Your task to perform on an android device: empty trash in the gmail app Image 0: 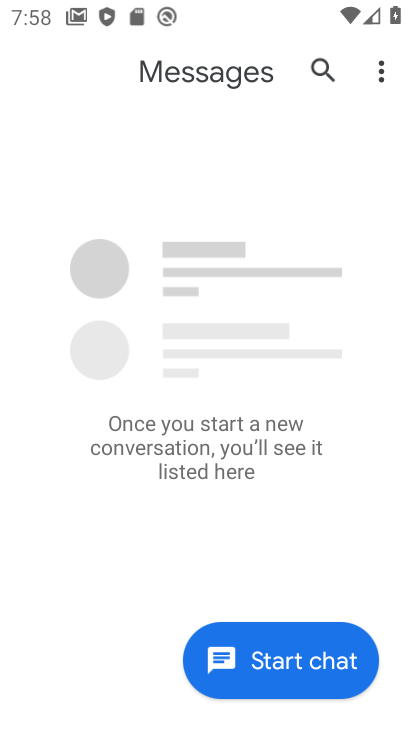
Step 0: press home button
Your task to perform on an android device: empty trash in the gmail app Image 1: 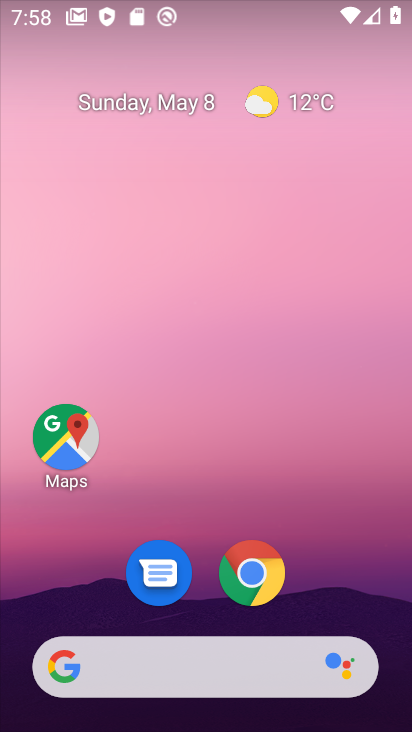
Step 1: drag from (216, 731) to (225, 186)
Your task to perform on an android device: empty trash in the gmail app Image 2: 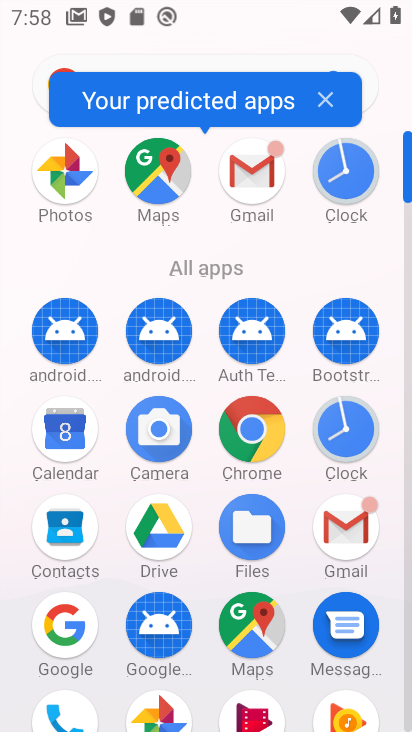
Step 2: click (350, 529)
Your task to perform on an android device: empty trash in the gmail app Image 3: 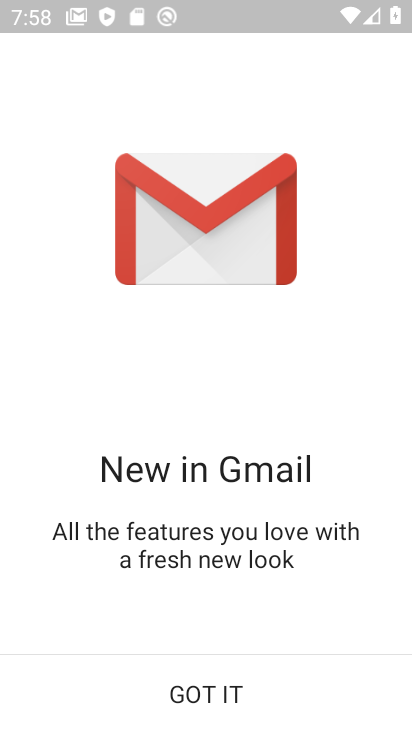
Step 3: click (190, 706)
Your task to perform on an android device: empty trash in the gmail app Image 4: 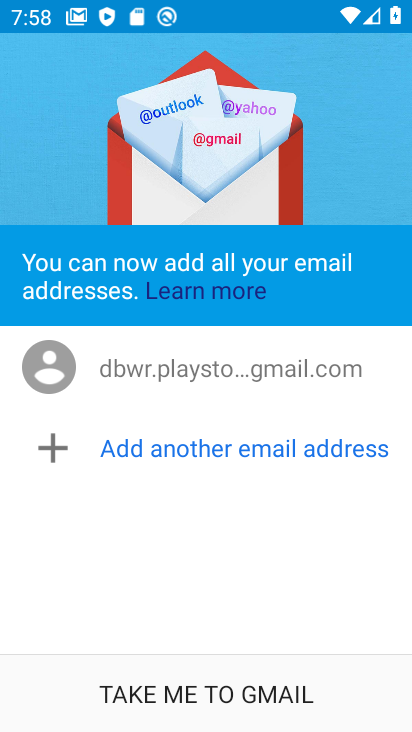
Step 4: click (204, 698)
Your task to perform on an android device: empty trash in the gmail app Image 5: 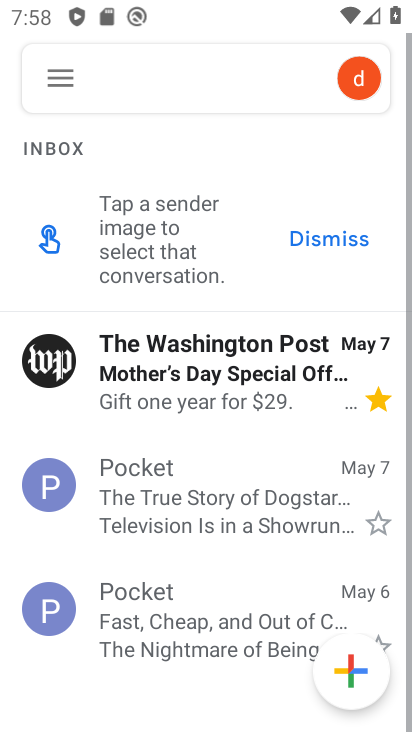
Step 5: click (59, 74)
Your task to perform on an android device: empty trash in the gmail app Image 6: 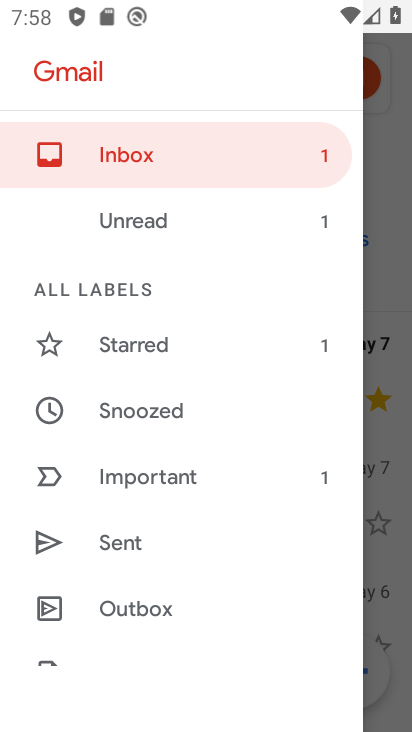
Step 6: drag from (155, 651) to (173, 260)
Your task to perform on an android device: empty trash in the gmail app Image 7: 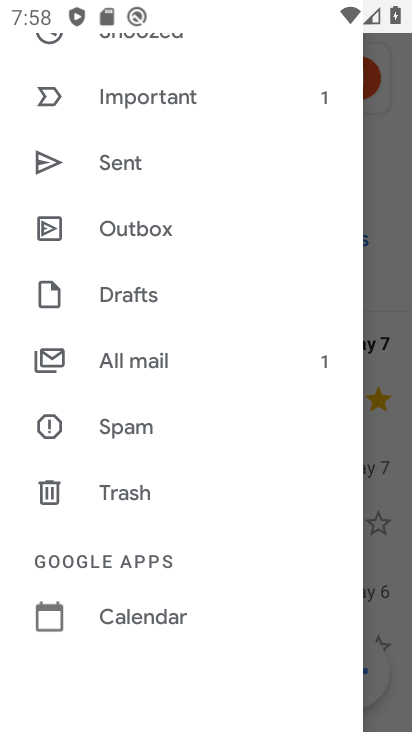
Step 7: click (129, 494)
Your task to perform on an android device: empty trash in the gmail app Image 8: 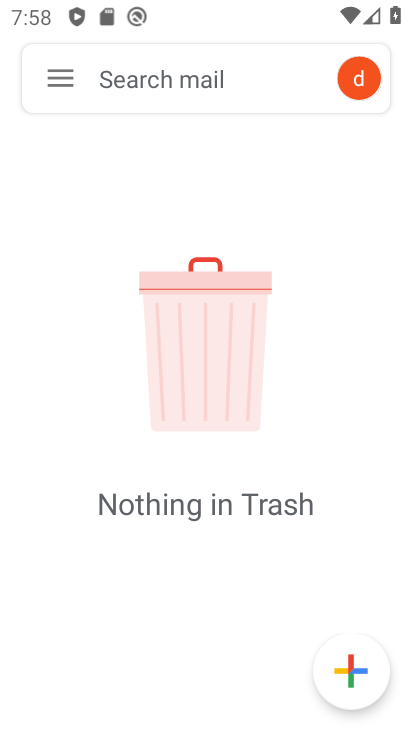
Step 8: task complete